Your task to perform on an android device: open a new tab in the chrome app Image 0: 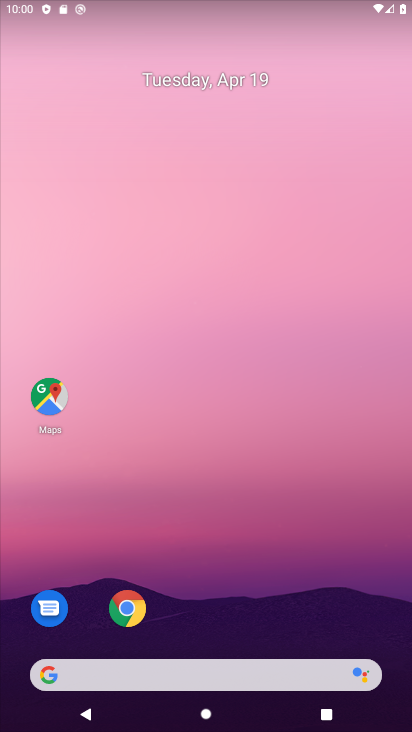
Step 0: click (128, 605)
Your task to perform on an android device: open a new tab in the chrome app Image 1: 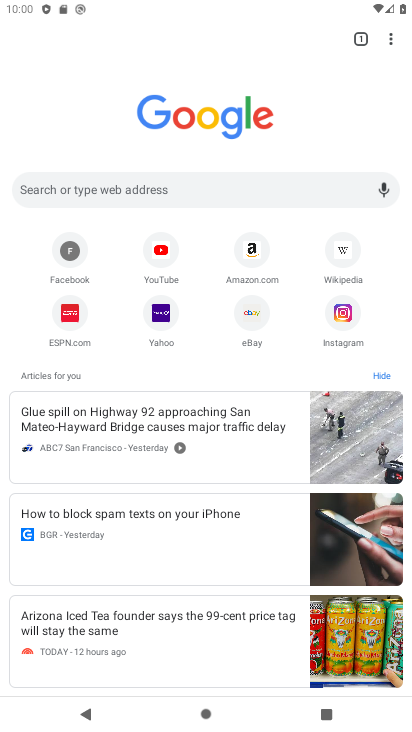
Step 1: click (359, 39)
Your task to perform on an android device: open a new tab in the chrome app Image 2: 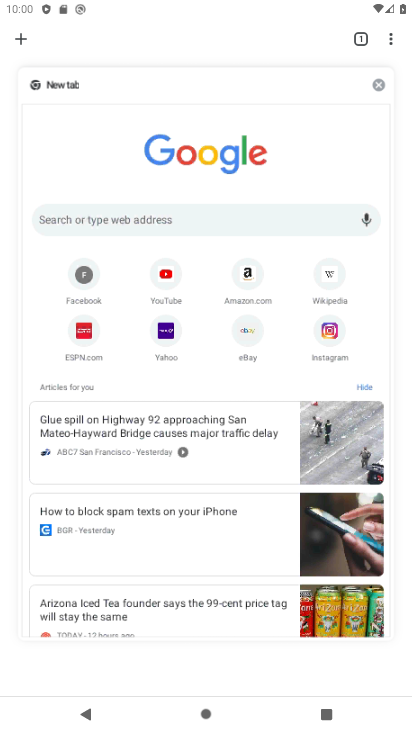
Step 2: click (21, 44)
Your task to perform on an android device: open a new tab in the chrome app Image 3: 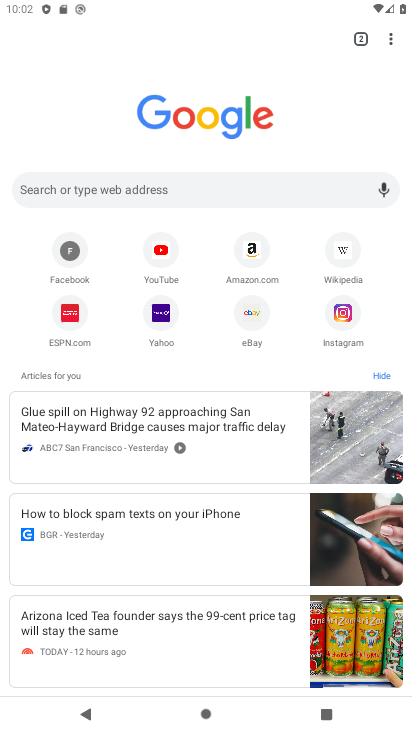
Step 3: task complete